Your task to perform on an android device: set an alarm Image 0: 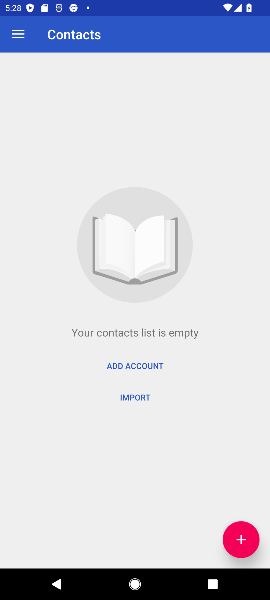
Step 0: press home button
Your task to perform on an android device: set an alarm Image 1: 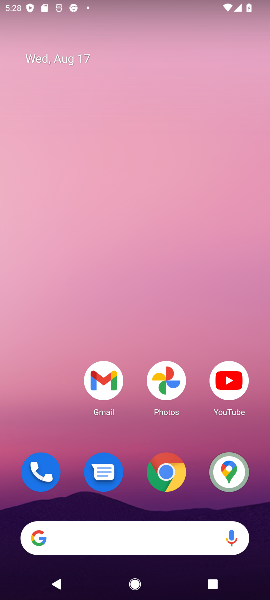
Step 1: drag from (146, 435) to (121, 83)
Your task to perform on an android device: set an alarm Image 2: 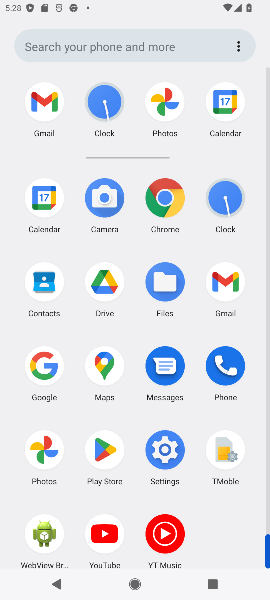
Step 2: click (217, 200)
Your task to perform on an android device: set an alarm Image 3: 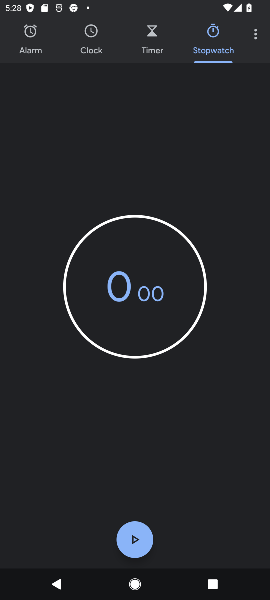
Step 3: click (45, 37)
Your task to perform on an android device: set an alarm Image 4: 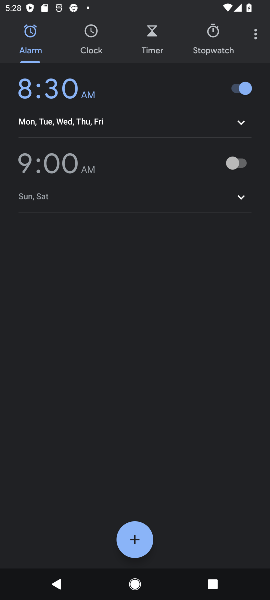
Step 4: click (239, 161)
Your task to perform on an android device: set an alarm Image 5: 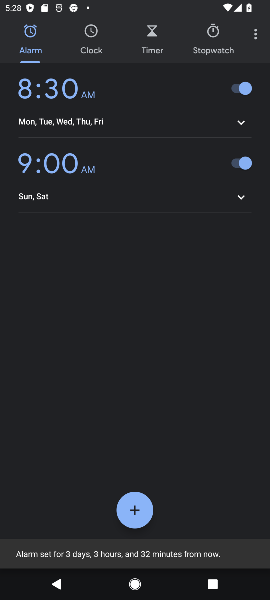
Step 5: task complete